Your task to perform on an android device: turn off wifi Image 0: 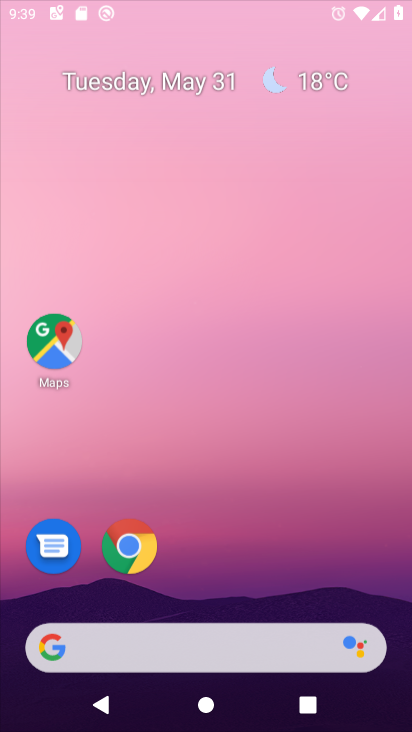
Step 0: click (132, 535)
Your task to perform on an android device: turn off wifi Image 1: 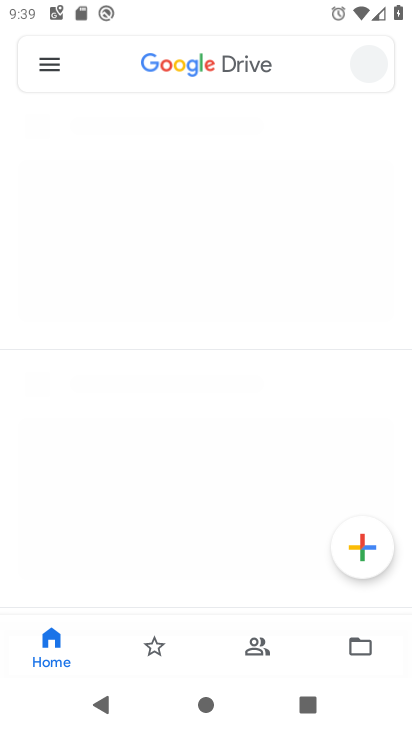
Step 1: click (122, 536)
Your task to perform on an android device: turn off wifi Image 2: 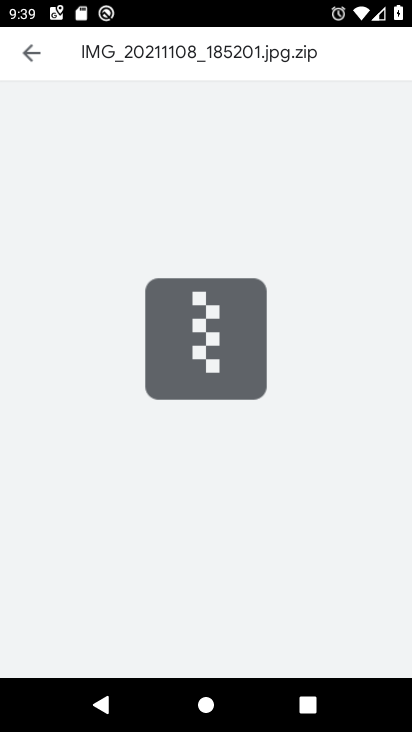
Step 2: press home button
Your task to perform on an android device: turn off wifi Image 3: 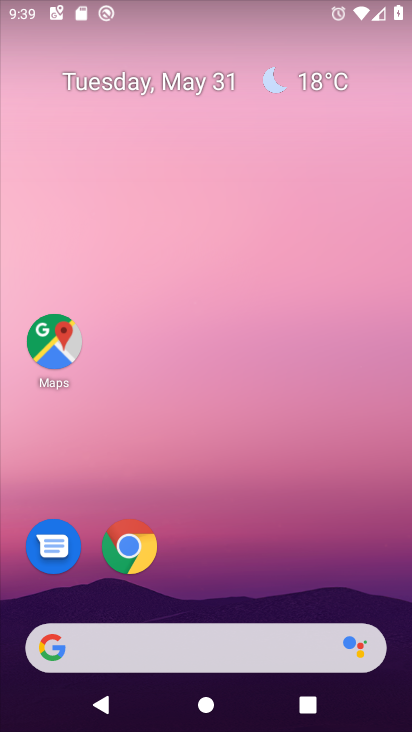
Step 3: drag from (196, 596) to (231, 396)
Your task to perform on an android device: turn off wifi Image 4: 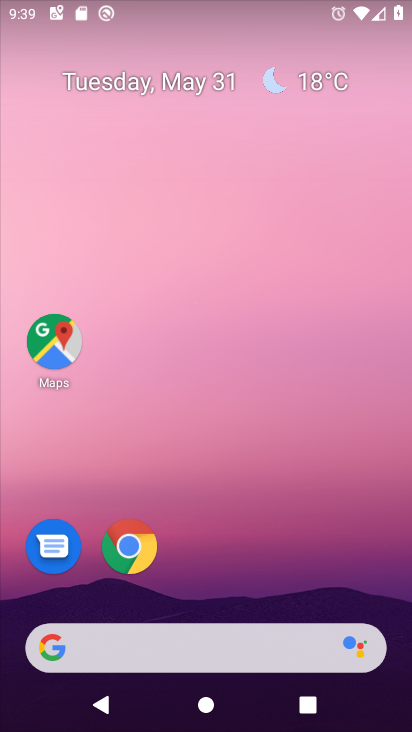
Step 4: drag from (234, 607) to (287, 136)
Your task to perform on an android device: turn off wifi Image 5: 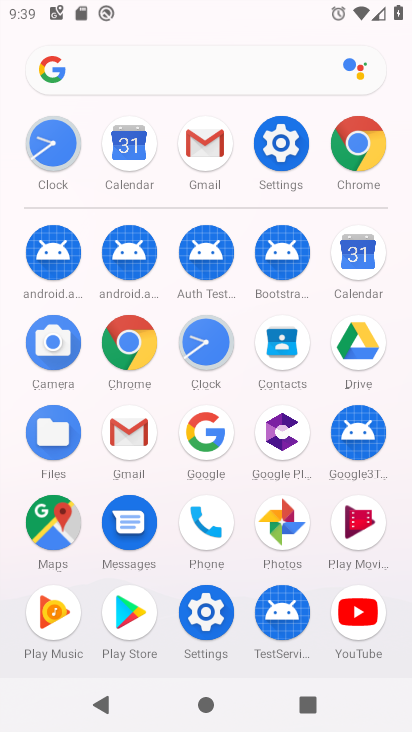
Step 5: click (286, 129)
Your task to perform on an android device: turn off wifi Image 6: 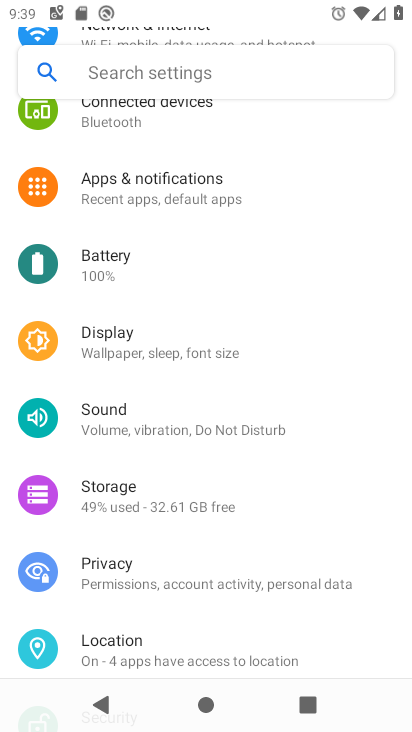
Step 6: drag from (268, 207) to (263, 586)
Your task to perform on an android device: turn off wifi Image 7: 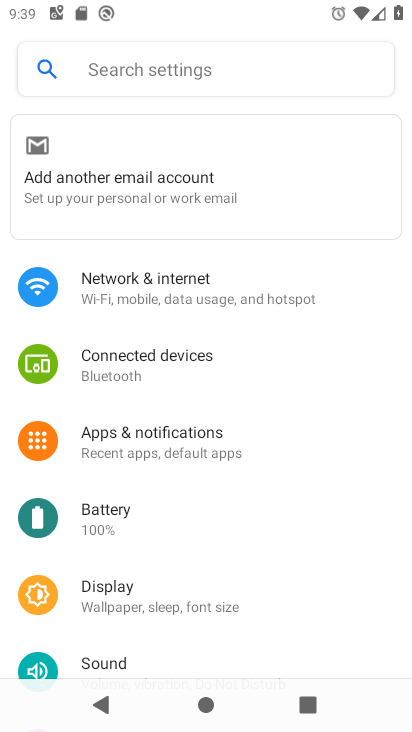
Step 7: click (246, 301)
Your task to perform on an android device: turn off wifi Image 8: 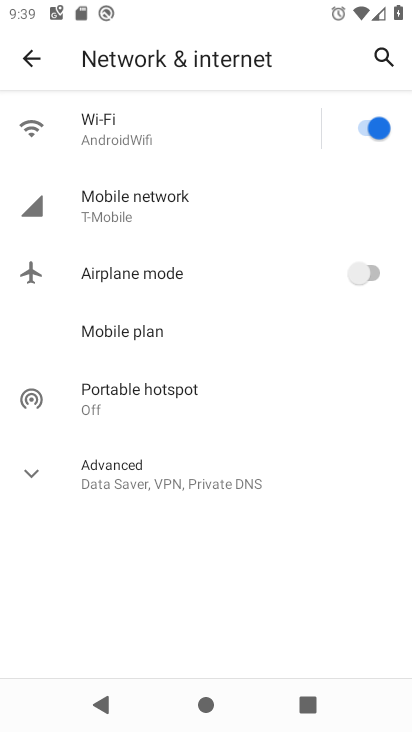
Step 8: click (363, 128)
Your task to perform on an android device: turn off wifi Image 9: 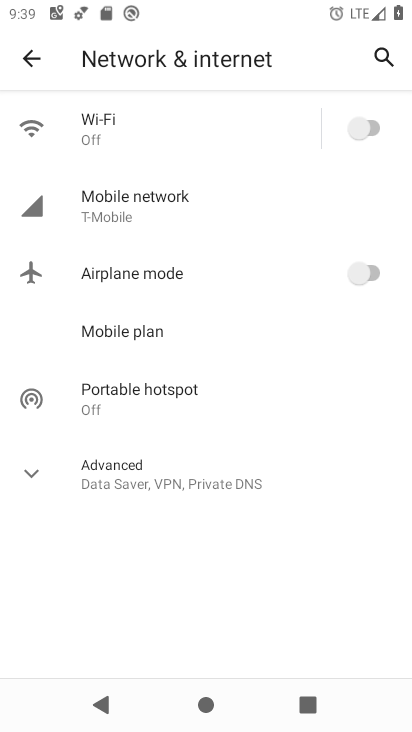
Step 9: task complete